Your task to perform on an android device: open app "LinkedIn" Image 0: 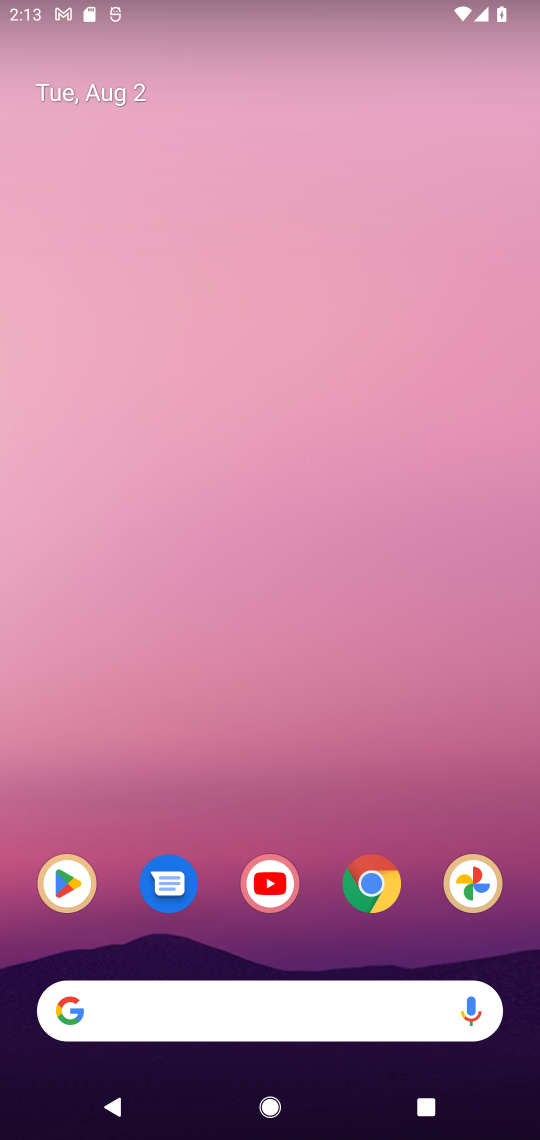
Step 0: drag from (322, 939) to (302, 63)
Your task to perform on an android device: open app "LinkedIn" Image 1: 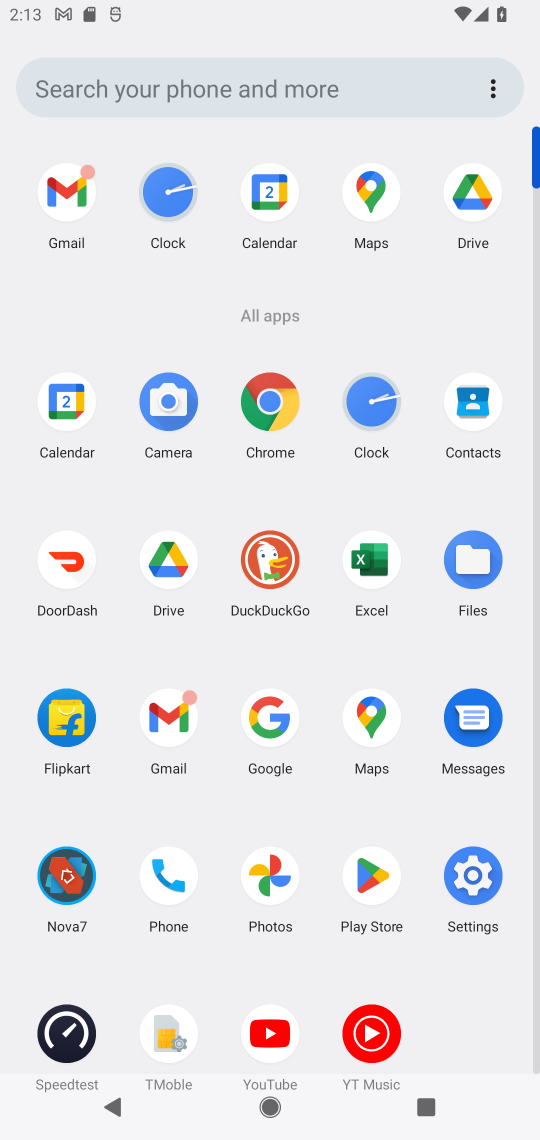
Step 1: click (372, 879)
Your task to perform on an android device: open app "LinkedIn" Image 2: 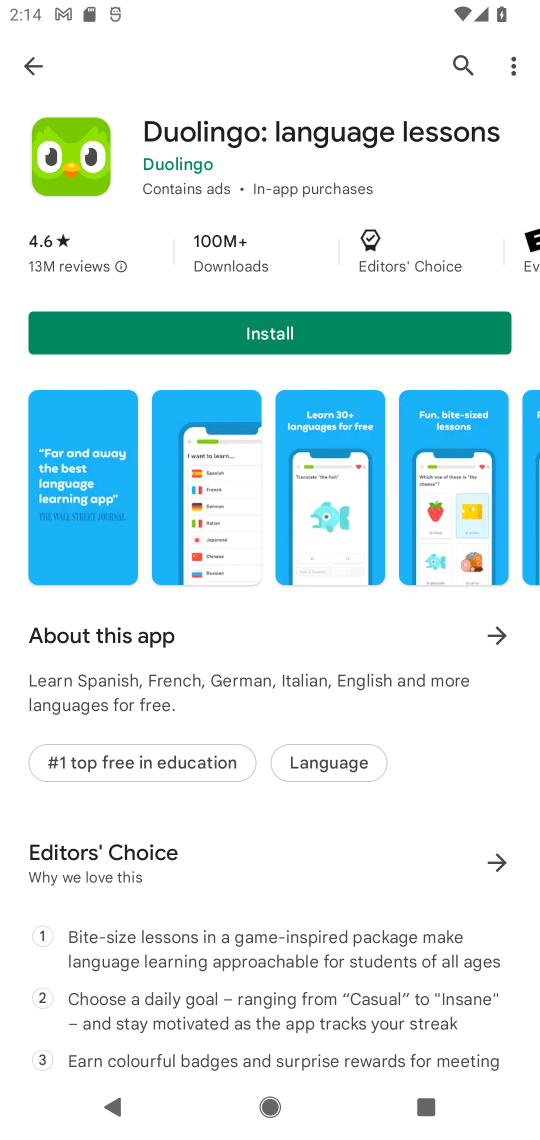
Step 2: click (24, 60)
Your task to perform on an android device: open app "LinkedIn" Image 3: 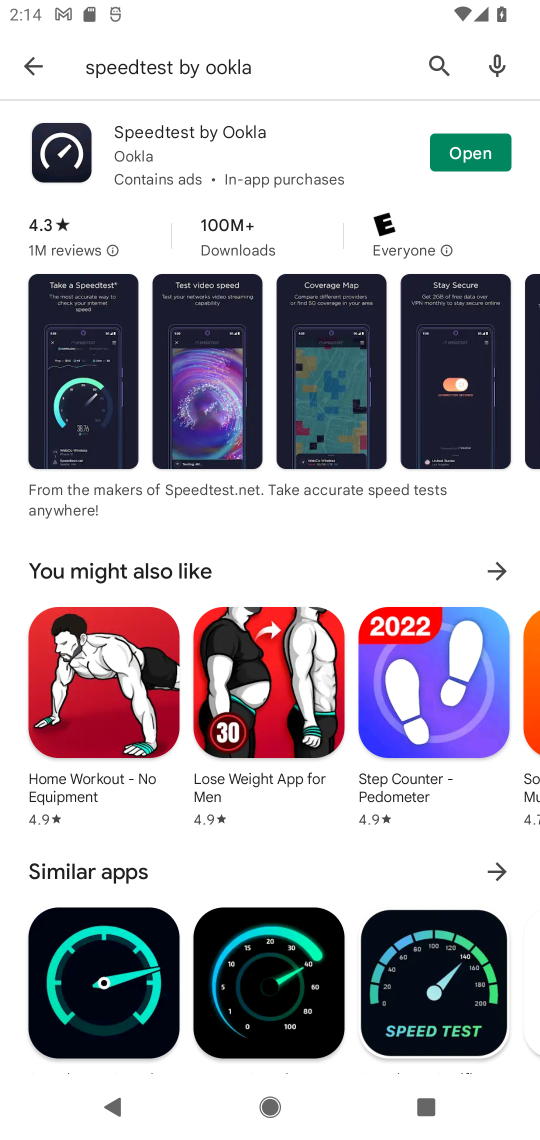
Step 3: click (426, 64)
Your task to perform on an android device: open app "LinkedIn" Image 4: 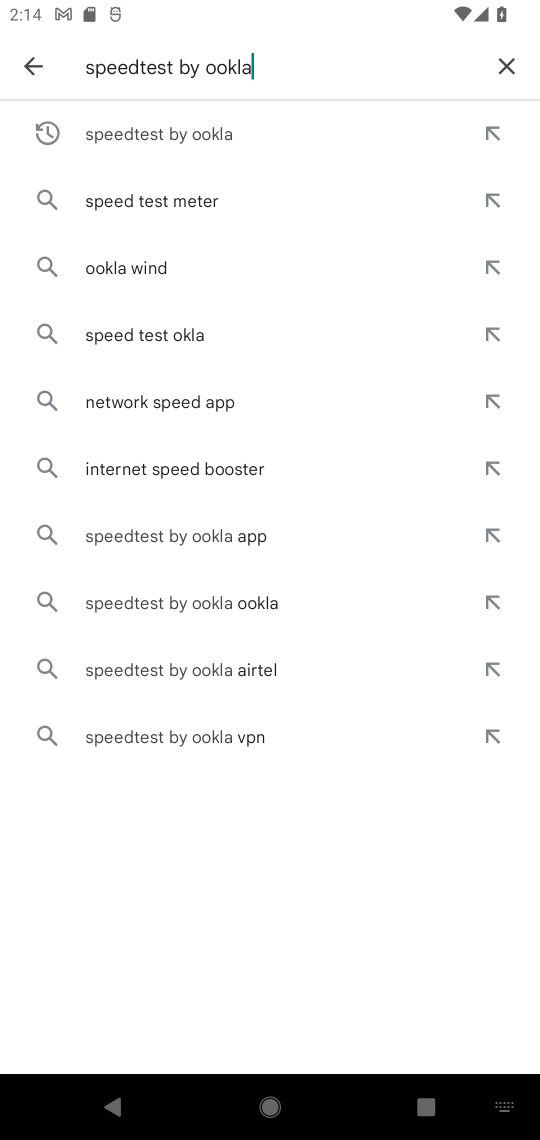
Step 4: click (506, 58)
Your task to perform on an android device: open app "LinkedIn" Image 5: 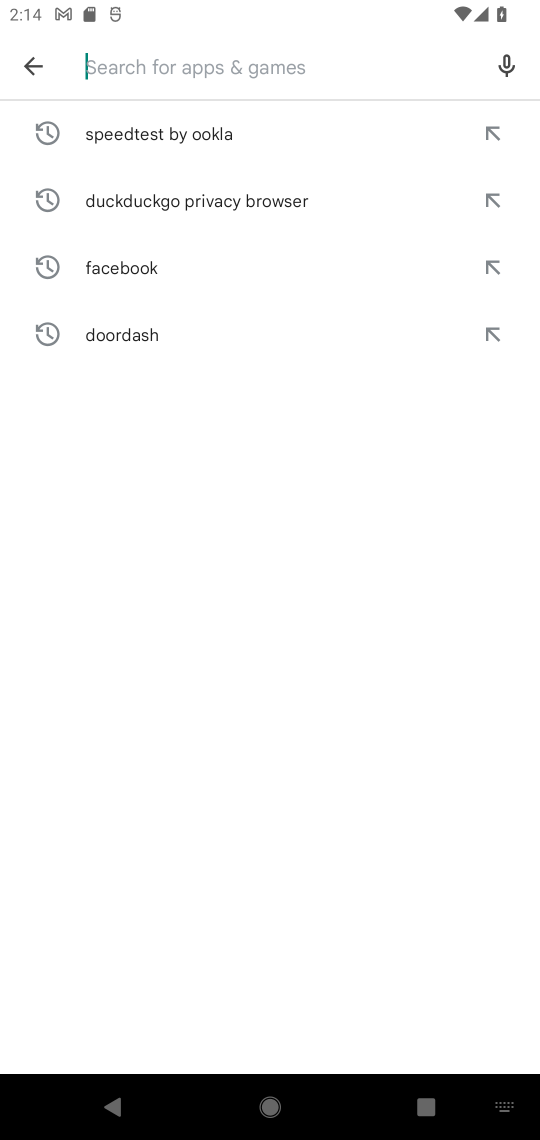
Step 5: type "LinkedIn"
Your task to perform on an android device: open app "LinkedIn" Image 6: 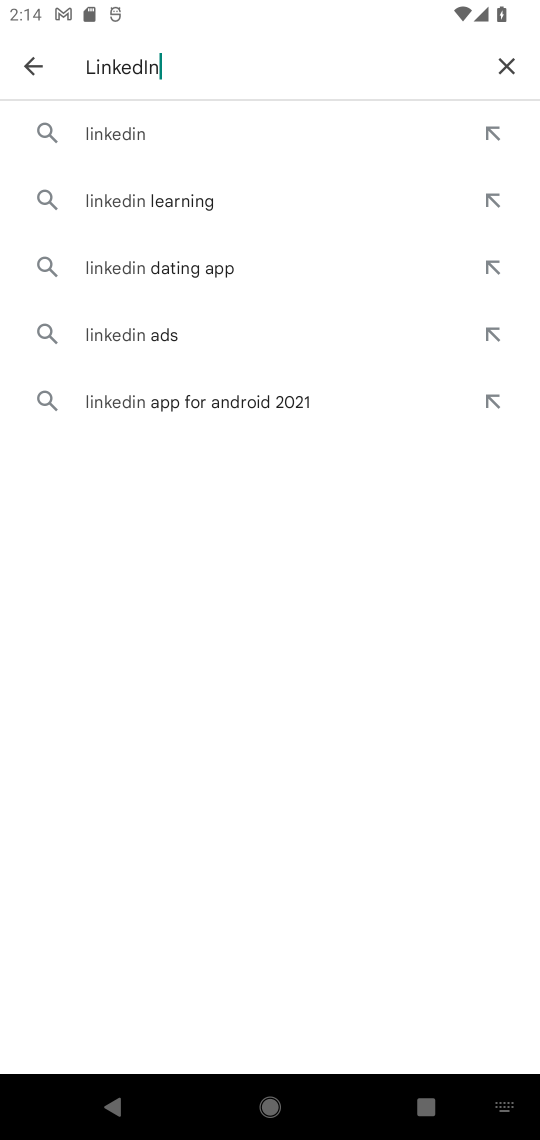
Step 6: click (102, 129)
Your task to perform on an android device: open app "LinkedIn" Image 7: 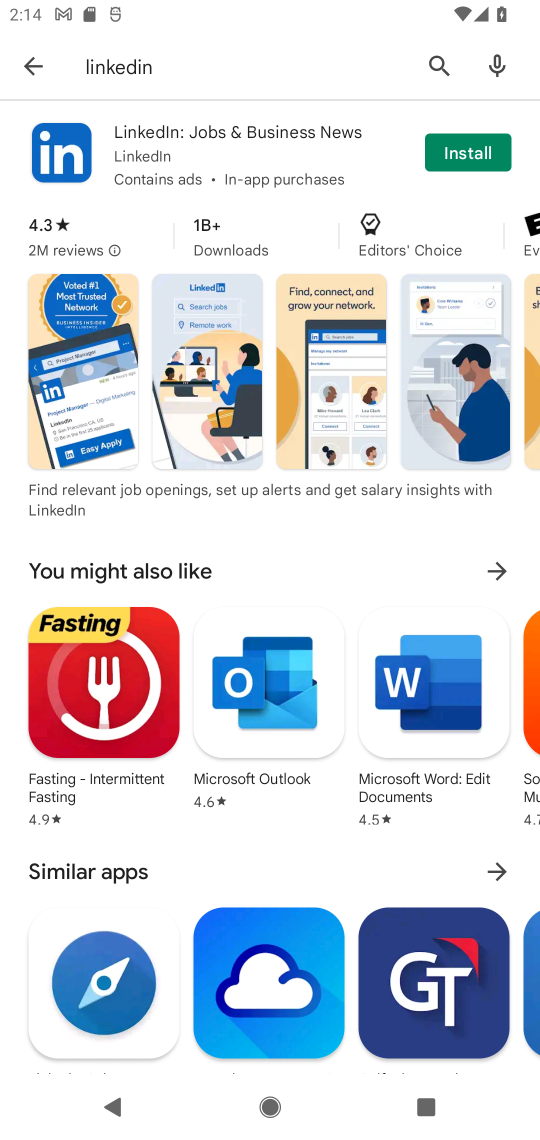
Step 7: task complete